Your task to perform on an android device: Go to battery settings Image 0: 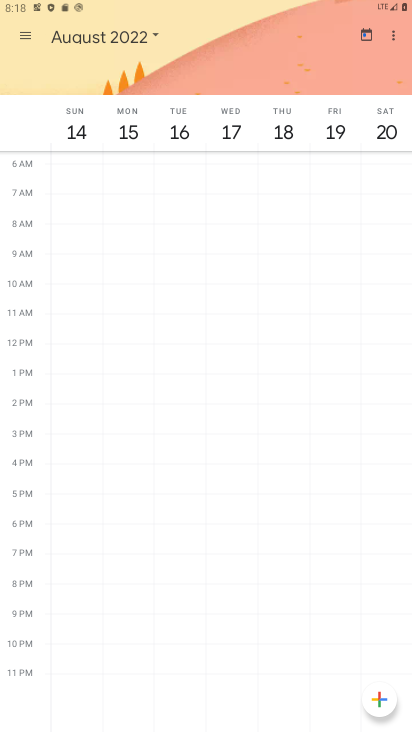
Step 0: press home button
Your task to perform on an android device: Go to battery settings Image 1: 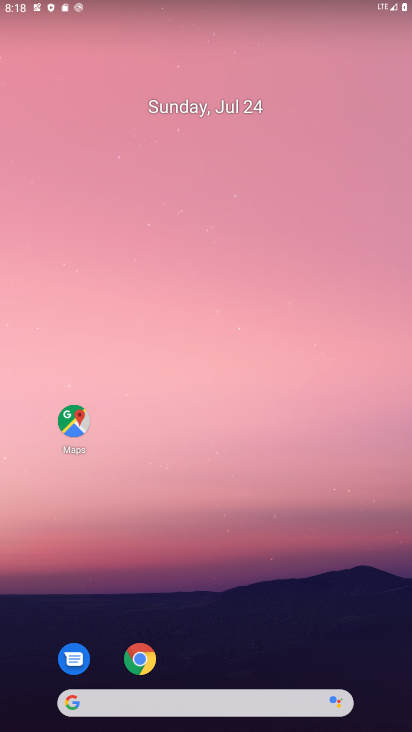
Step 1: drag from (209, 625) to (205, 250)
Your task to perform on an android device: Go to battery settings Image 2: 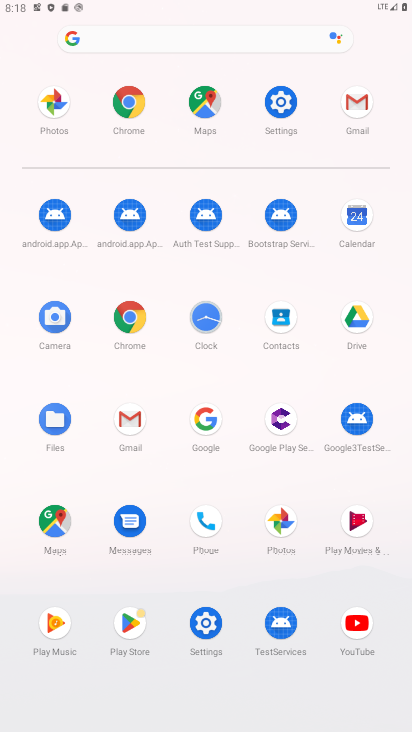
Step 2: click (281, 113)
Your task to perform on an android device: Go to battery settings Image 3: 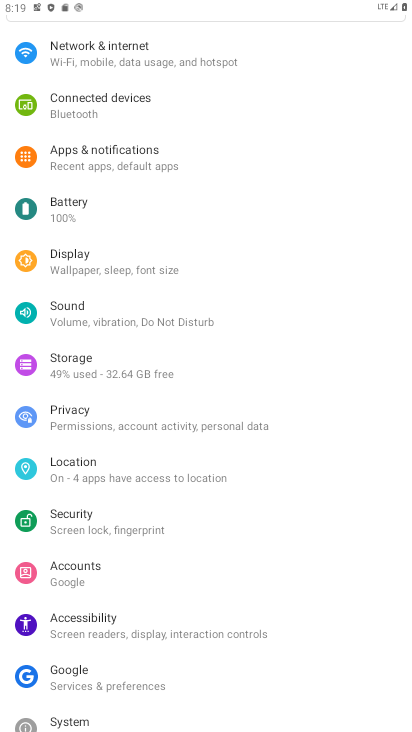
Step 3: click (70, 203)
Your task to perform on an android device: Go to battery settings Image 4: 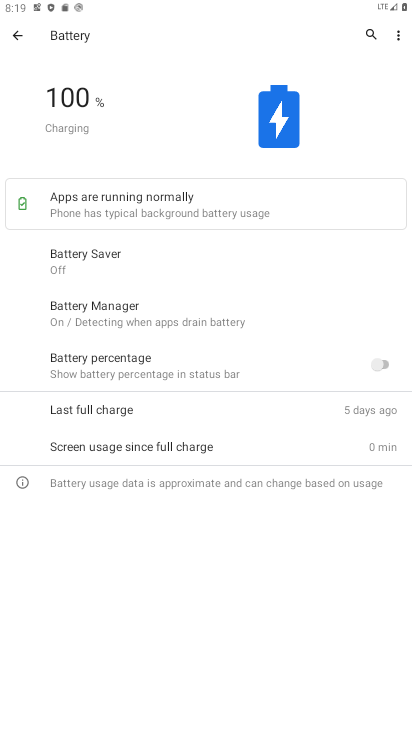
Step 4: click (62, 210)
Your task to perform on an android device: Go to battery settings Image 5: 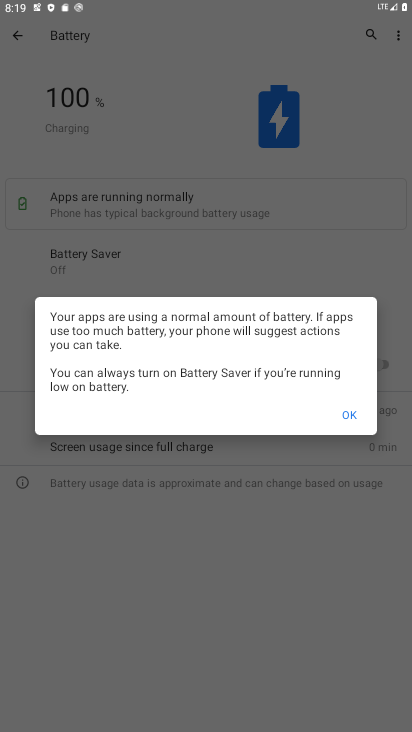
Step 5: click (343, 415)
Your task to perform on an android device: Go to battery settings Image 6: 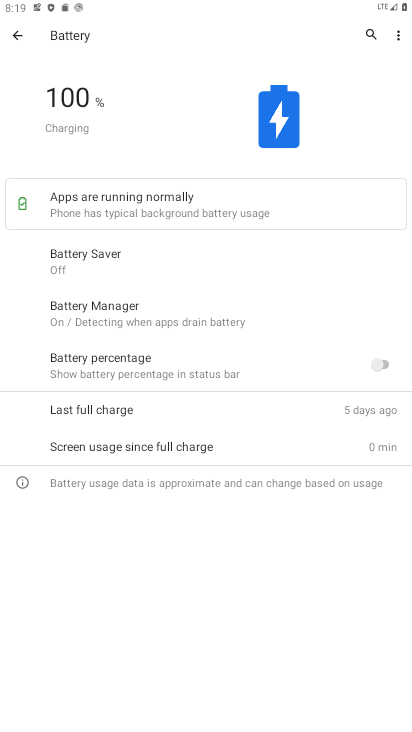
Step 6: task complete